Your task to perform on an android device: turn off smart reply in the gmail app Image 0: 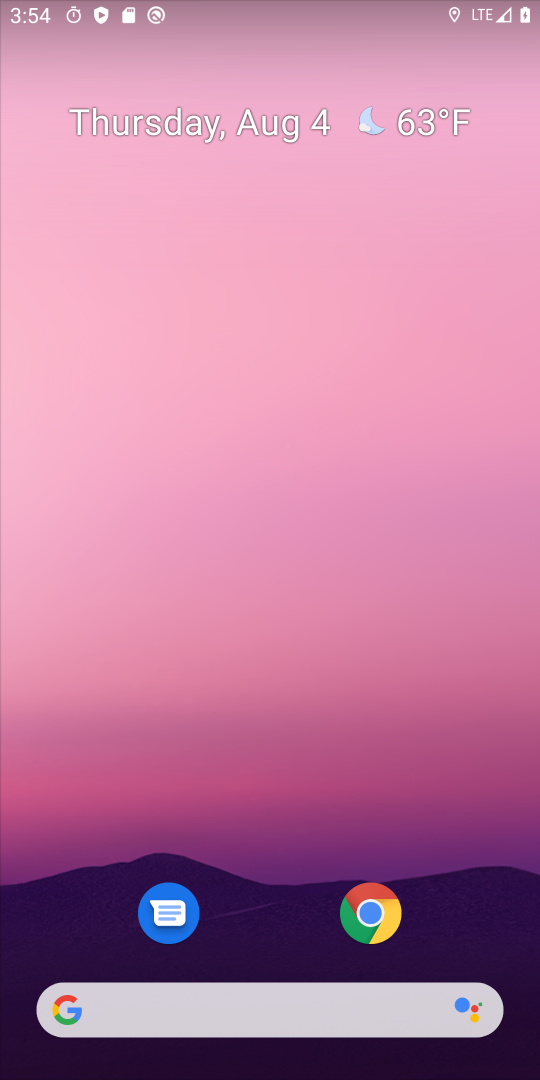
Step 0: drag from (257, 1007) to (328, 4)
Your task to perform on an android device: turn off smart reply in the gmail app Image 1: 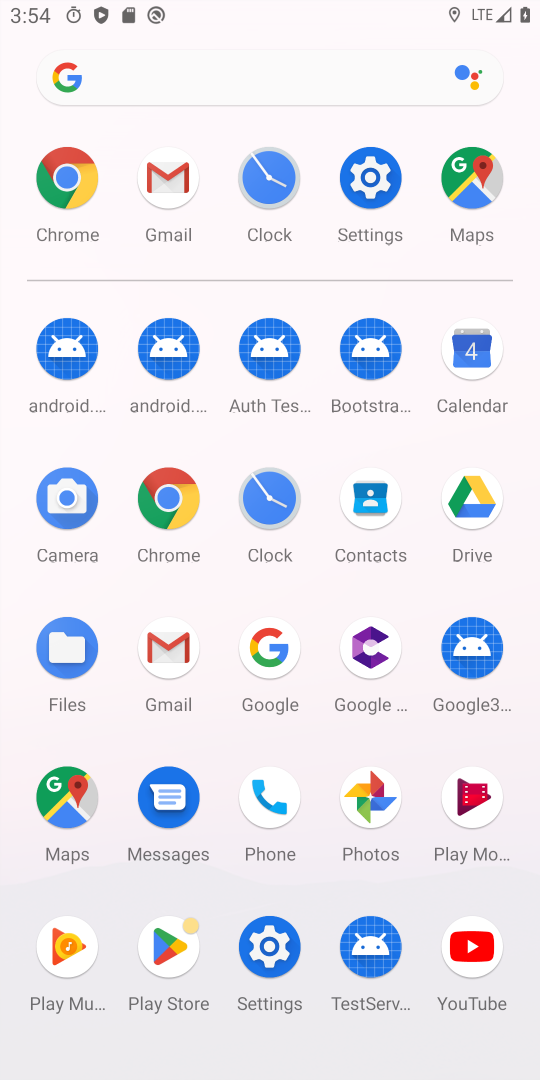
Step 1: click (172, 652)
Your task to perform on an android device: turn off smart reply in the gmail app Image 2: 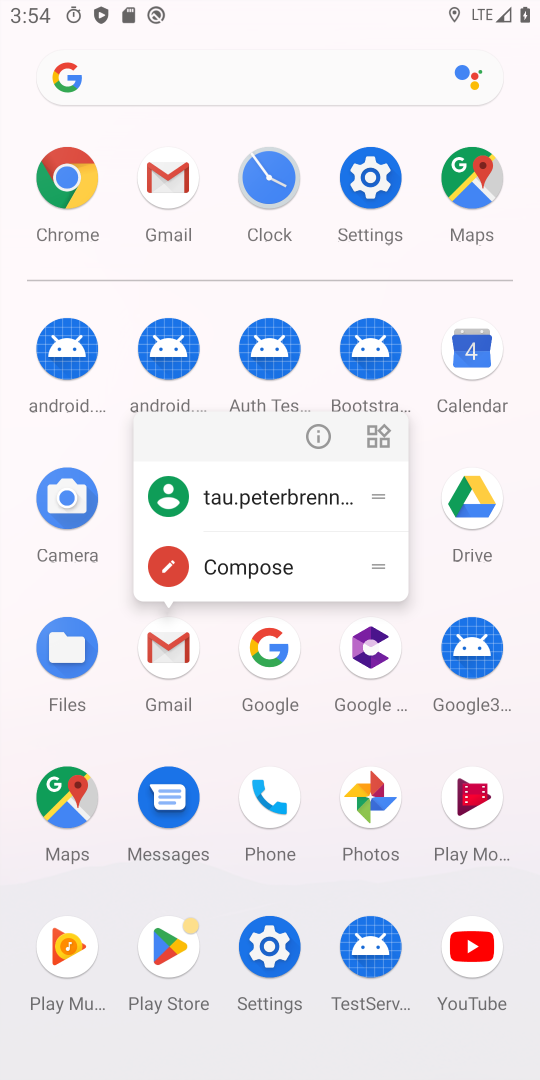
Step 2: click (147, 644)
Your task to perform on an android device: turn off smart reply in the gmail app Image 3: 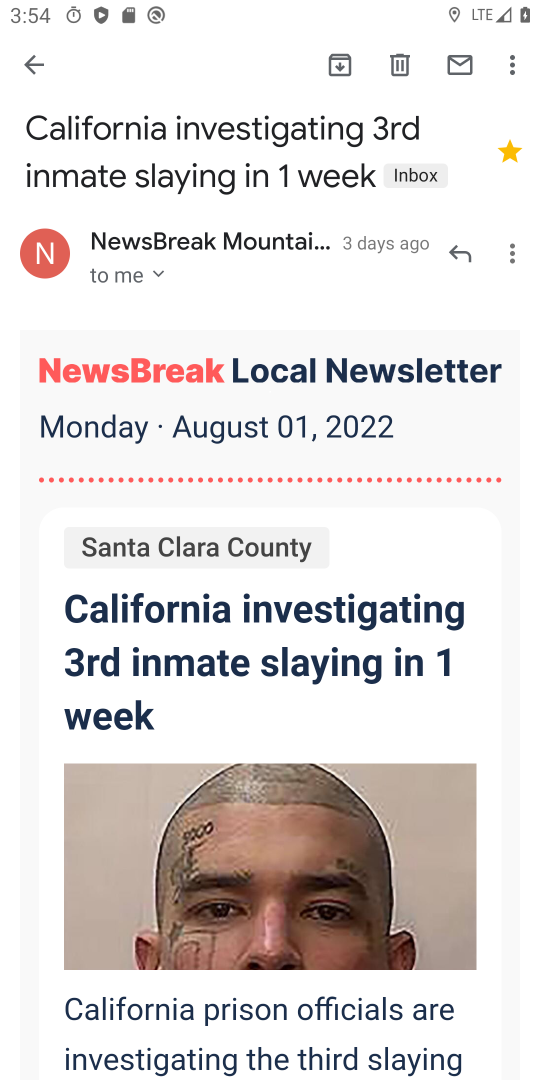
Step 3: press back button
Your task to perform on an android device: turn off smart reply in the gmail app Image 4: 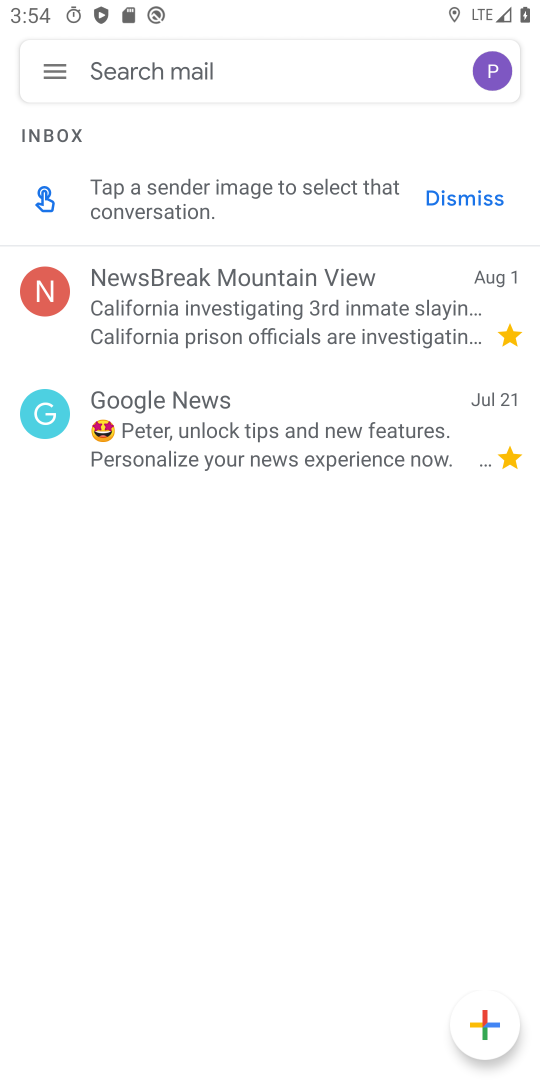
Step 4: click (44, 70)
Your task to perform on an android device: turn off smart reply in the gmail app Image 5: 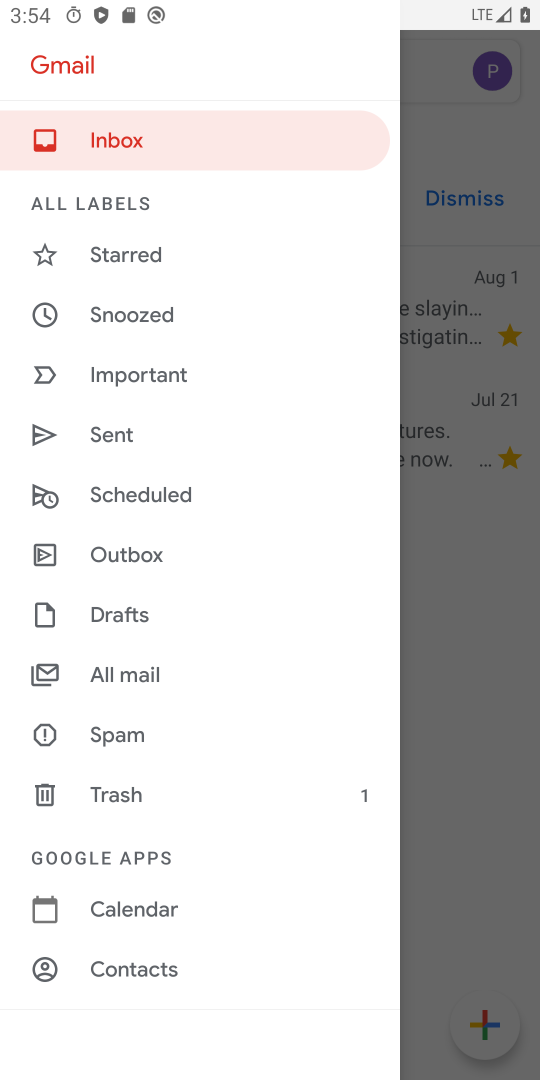
Step 5: drag from (234, 942) to (250, 217)
Your task to perform on an android device: turn off smart reply in the gmail app Image 6: 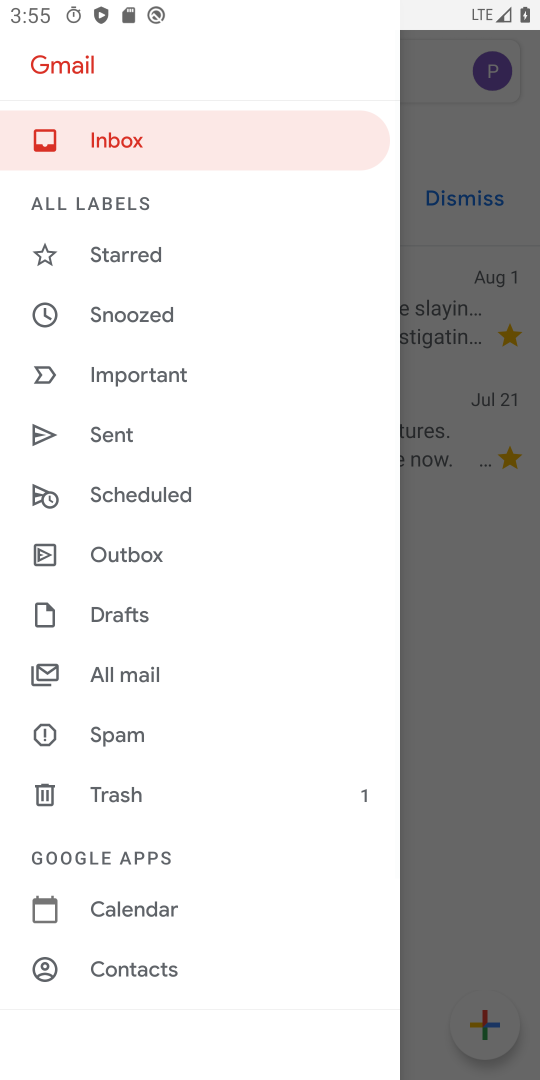
Step 6: drag from (222, 921) to (228, 132)
Your task to perform on an android device: turn off smart reply in the gmail app Image 7: 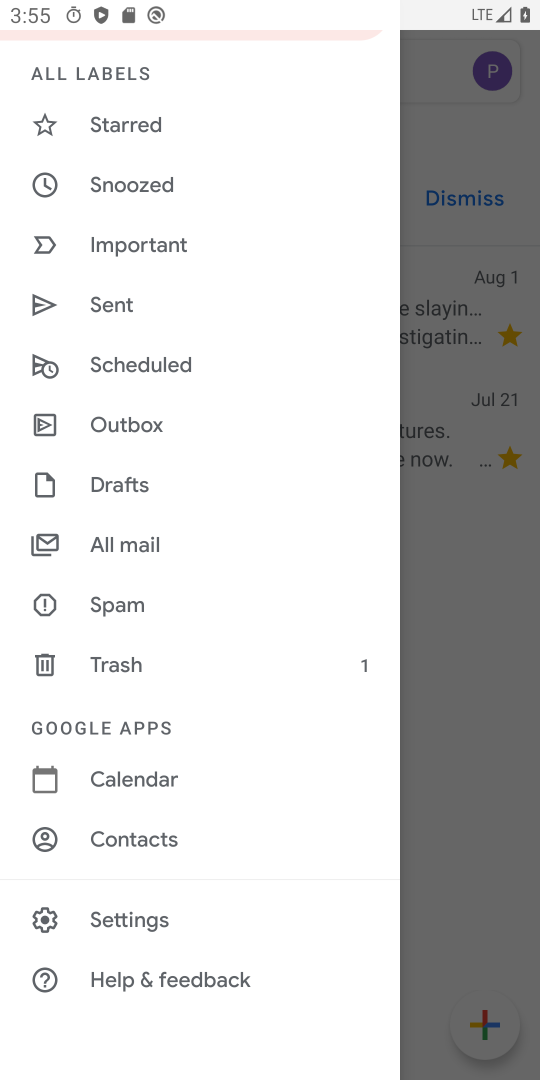
Step 7: click (139, 912)
Your task to perform on an android device: turn off smart reply in the gmail app Image 8: 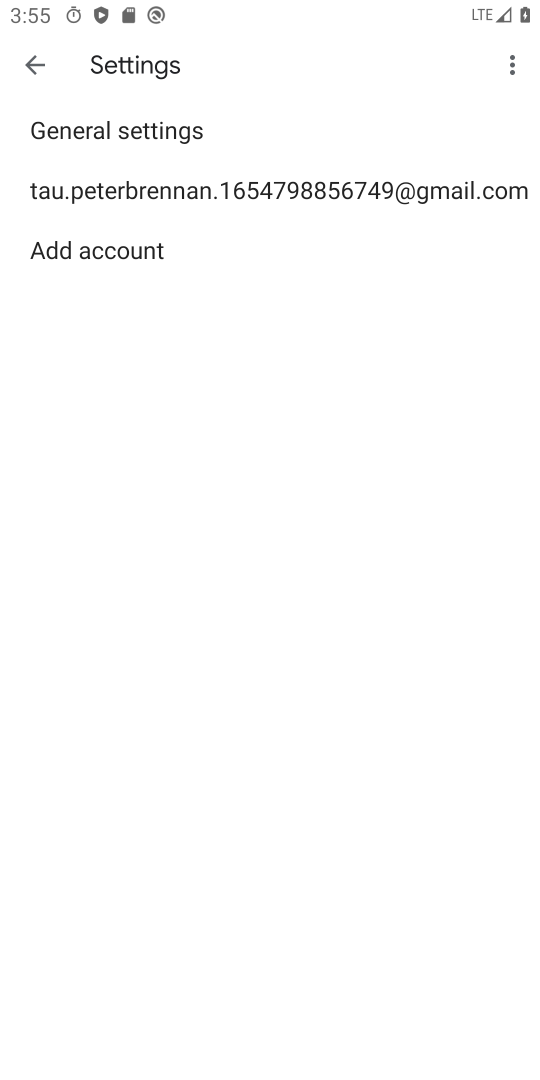
Step 8: click (300, 180)
Your task to perform on an android device: turn off smart reply in the gmail app Image 9: 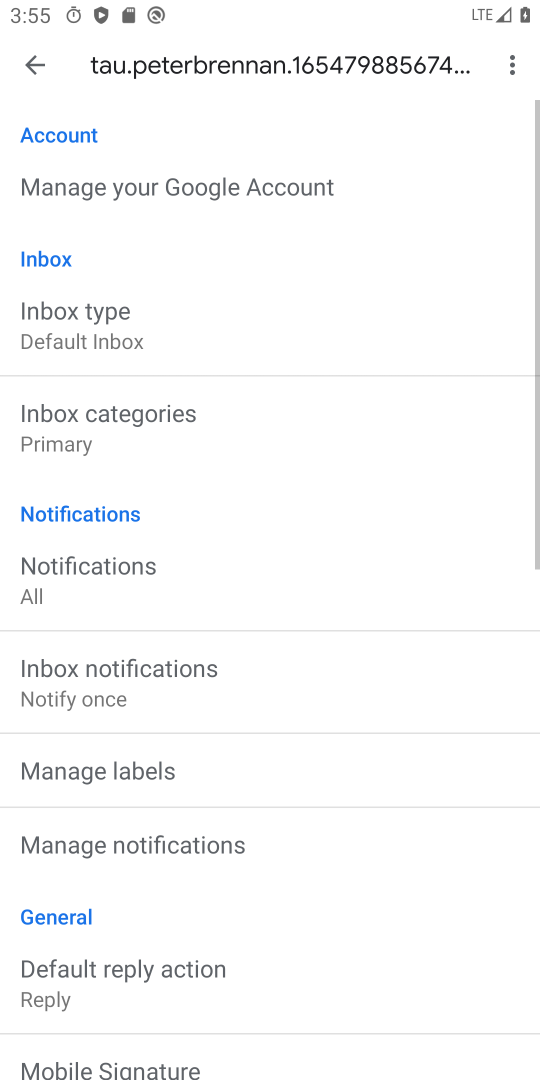
Step 9: drag from (209, 1004) to (286, 199)
Your task to perform on an android device: turn off smart reply in the gmail app Image 10: 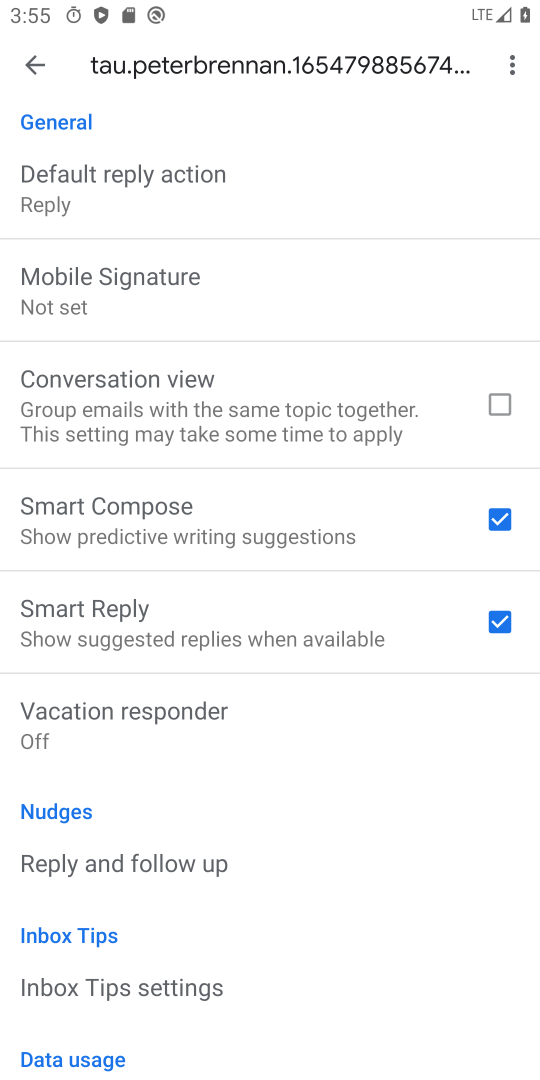
Step 10: click (307, 628)
Your task to perform on an android device: turn off smart reply in the gmail app Image 11: 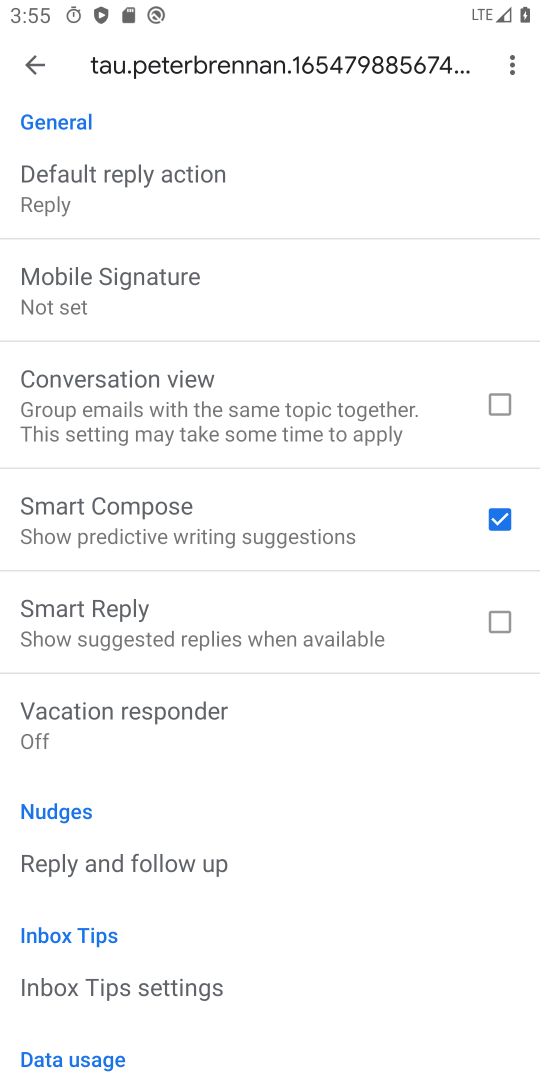
Step 11: task complete